Your task to perform on an android device: Search for the new iphone 13 pro on Etsy. Image 0: 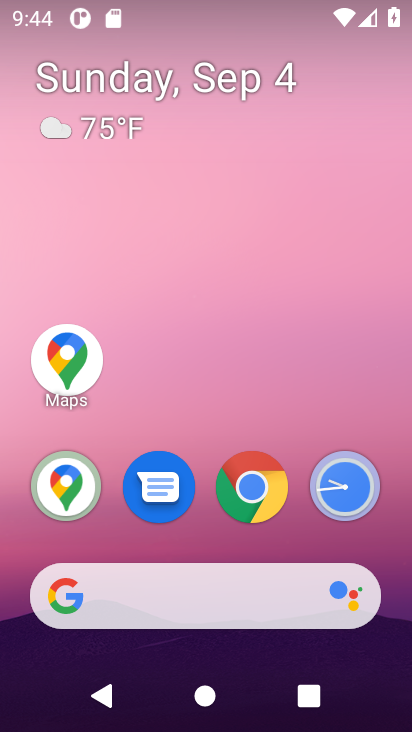
Step 0: click (271, 498)
Your task to perform on an android device: Search for the new iphone 13 pro on Etsy. Image 1: 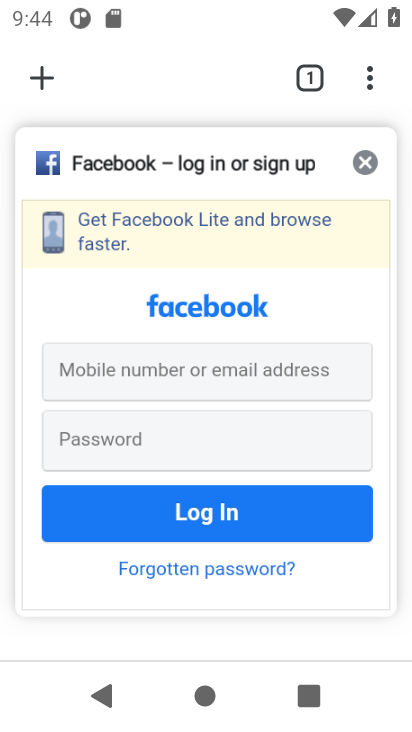
Step 1: click (273, 570)
Your task to perform on an android device: Search for the new iphone 13 pro on Etsy. Image 2: 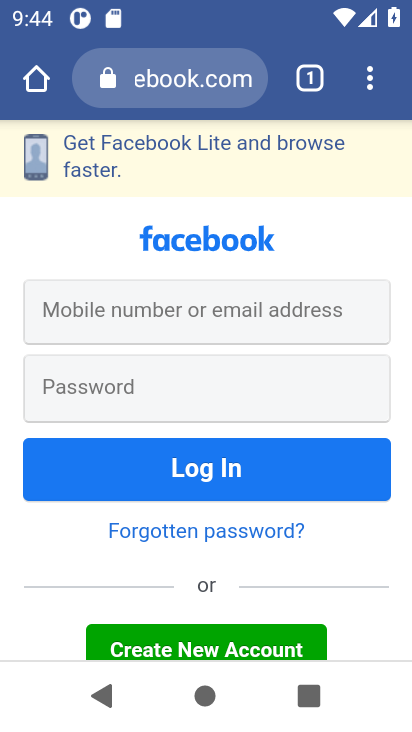
Step 2: task complete